Your task to perform on an android device: see creations saved in the google photos Image 0: 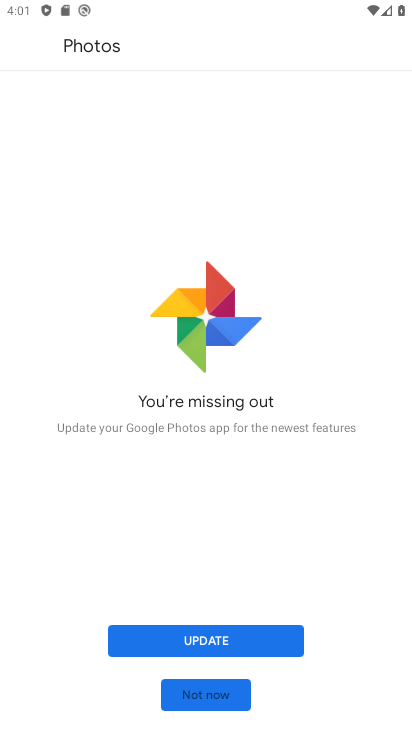
Step 0: press home button
Your task to perform on an android device: see creations saved in the google photos Image 1: 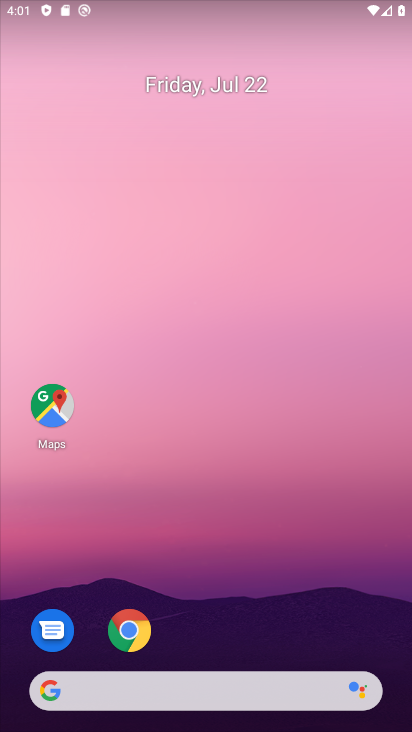
Step 1: drag from (196, 609) to (243, 169)
Your task to perform on an android device: see creations saved in the google photos Image 2: 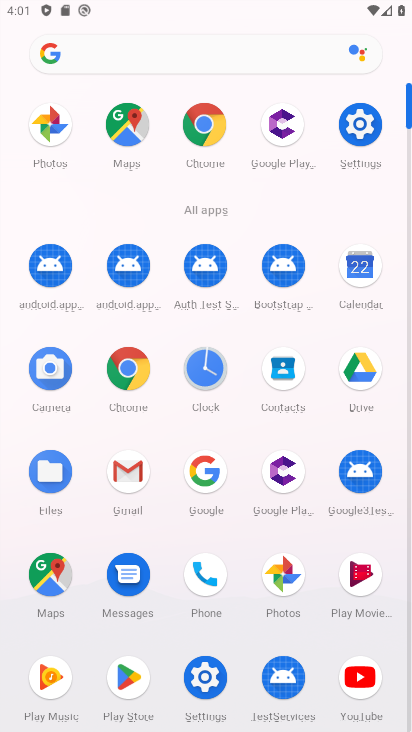
Step 2: click (276, 577)
Your task to perform on an android device: see creations saved in the google photos Image 3: 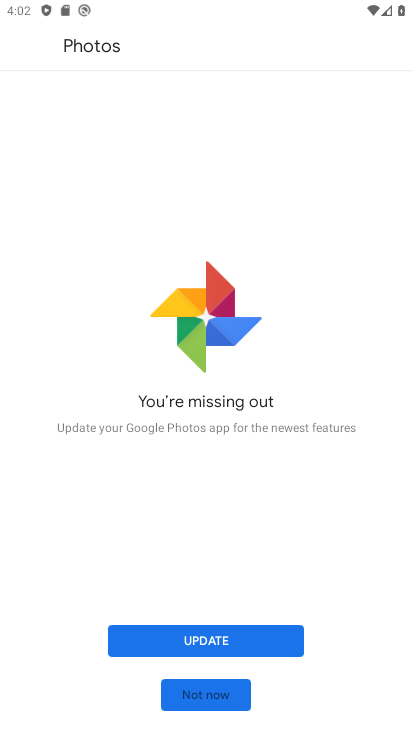
Step 3: click (201, 647)
Your task to perform on an android device: see creations saved in the google photos Image 4: 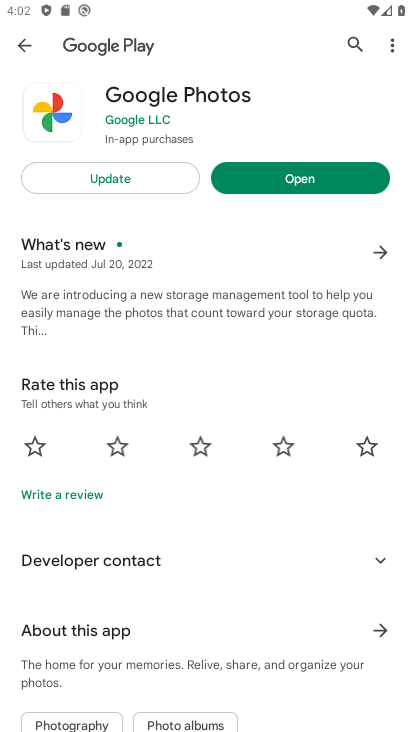
Step 4: click (105, 185)
Your task to perform on an android device: see creations saved in the google photos Image 5: 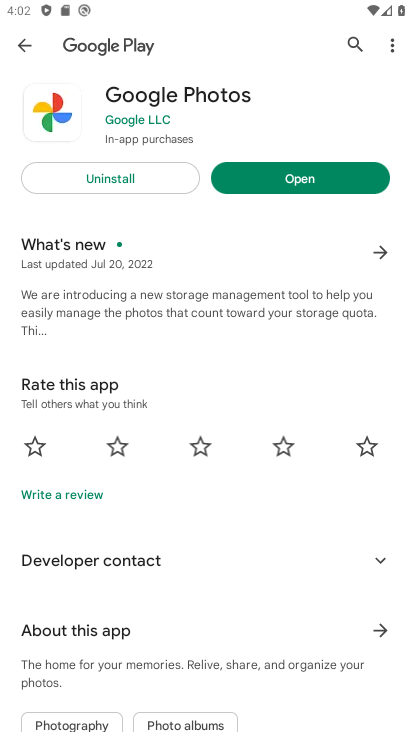
Step 5: click (336, 170)
Your task to perform on an android device: see creations saved in the google photos Image 6: 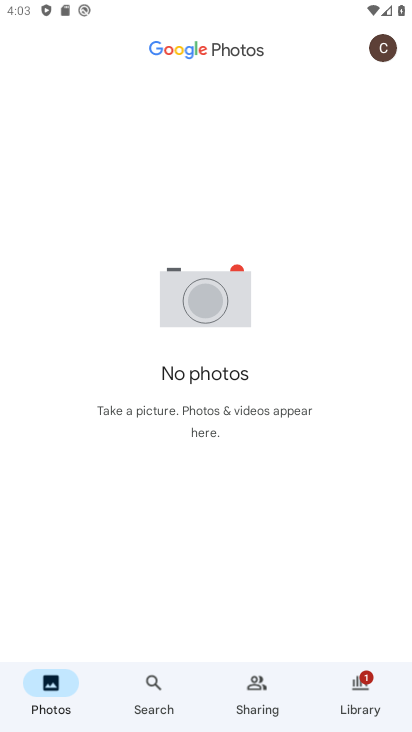
Step 6: click (150, 684)
Your task to perform on an android device: see creations saved in the google photos Image 7: 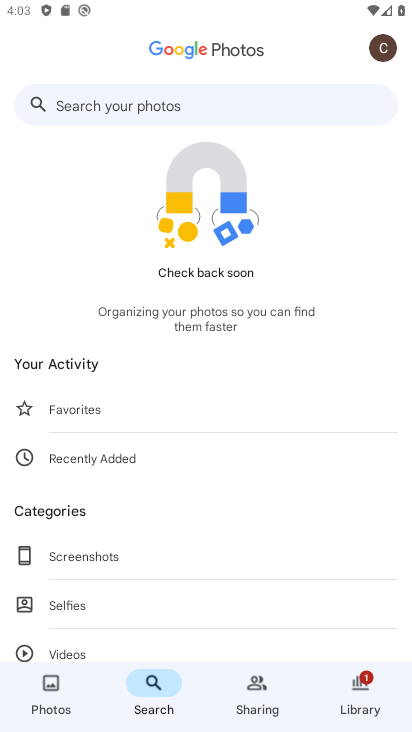
Step 7: drag from (117, 523) to (116, 424)
Your task to perform on an android device: see creations saved in the google photos Image 8: 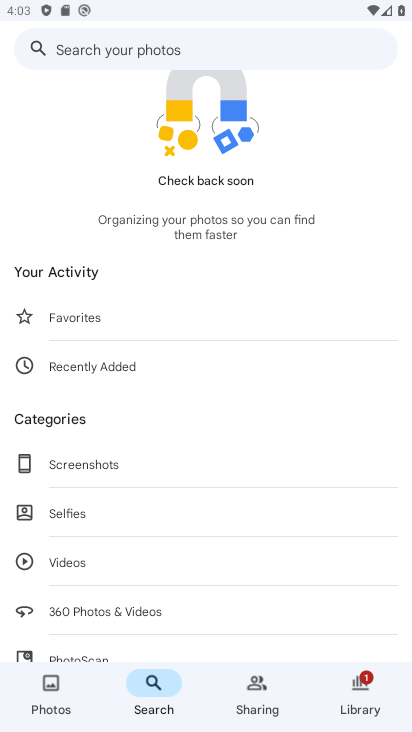
Step 8: drag from (166, 478) to (143, 162)
Your task to perform on an android device: see creations saved in the google photos Image 9: 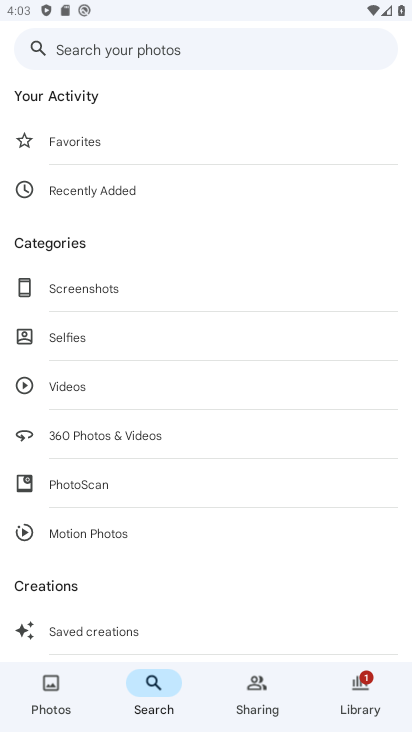
Step 9: click (85, 630)
Your task to perform on an android device: see creations saved in the google photos Image 10: 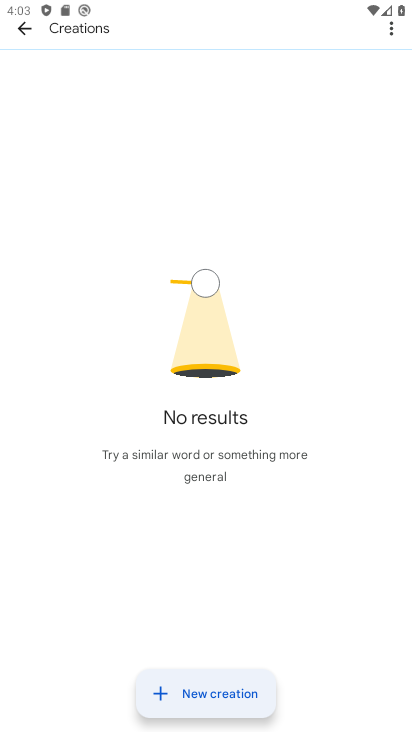
Step 10: task complete